Your task to perform on an android device: delete a single message in the gmail app Image 0: 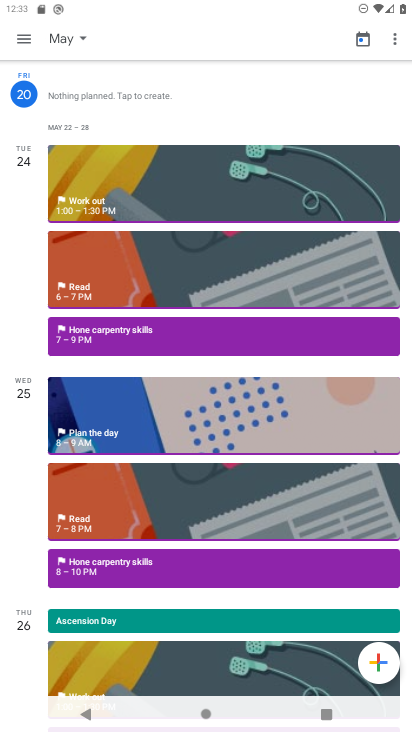
Step 0: press home button
Your task to perform on an android device: delete a single message in the gmail app Image 1: 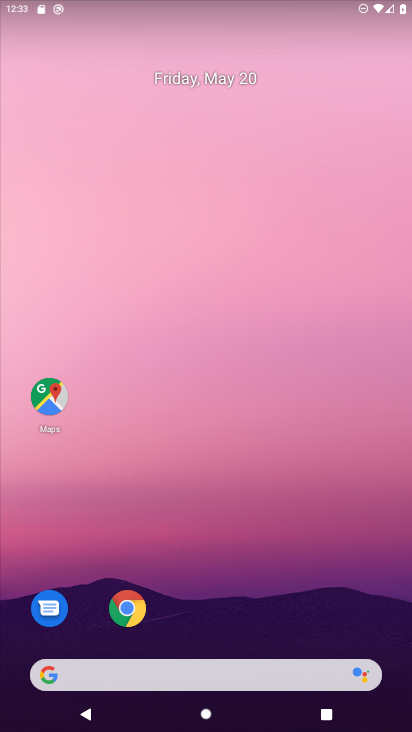
Step 1: drag from (293, 583) to (302, 191)
Your task to perform on an android device: delete a single message in the gmail app Image 2: 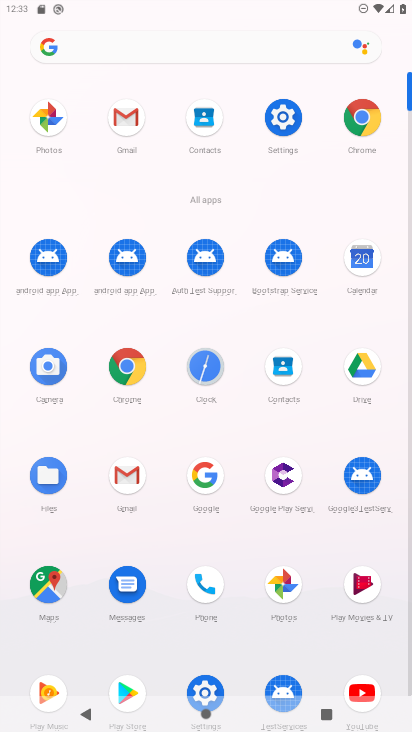
Step 2: click (132, 124)
Your task to perform on an android device: delete a single message in the gmail app Image 3: 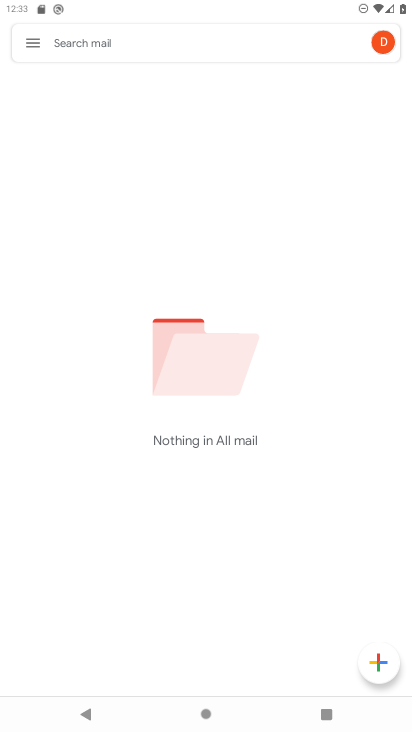
Step 3: click (37, 38)
Your task to perform on an android device: delete a single message in the gmail app Image 4: 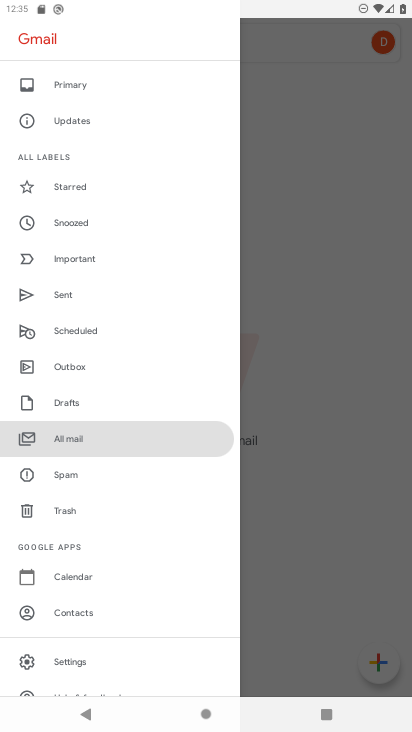
Step 4: task complete